Your task to perform on an android device: Go to accessibility settings Image 0: 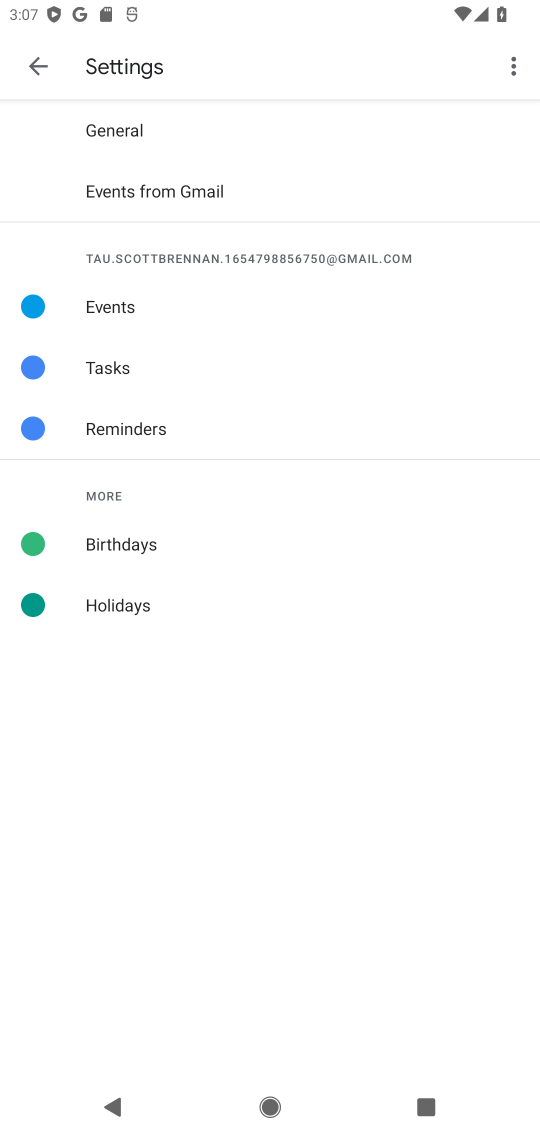
Step 0: press home button
Your task to perform on an android device: Go to accessibility settings Image 1: 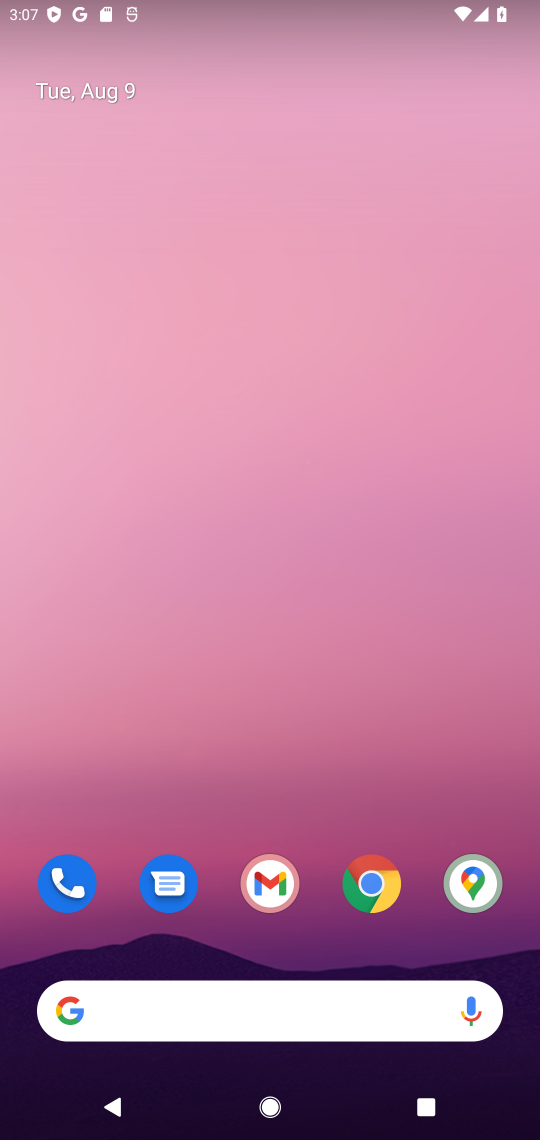
Step 1: drag from (431, 938) to (389, 176)
Your task to perform on an android device: Go to accessibility settings Image 2: 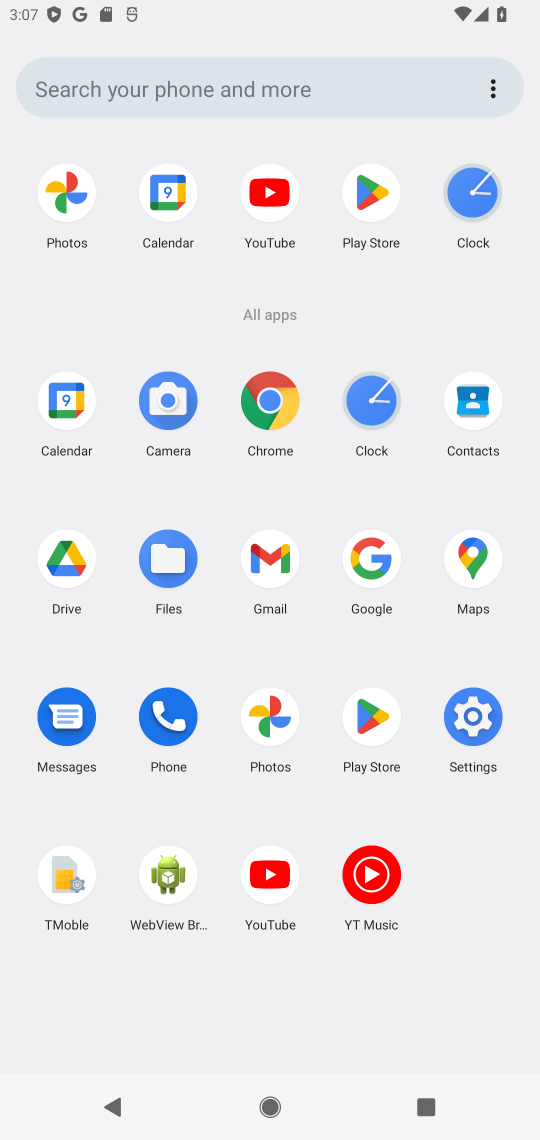
Step 2: click (473, 714)
Your task to perform on an android device: Go to accessibility settings Image 3: 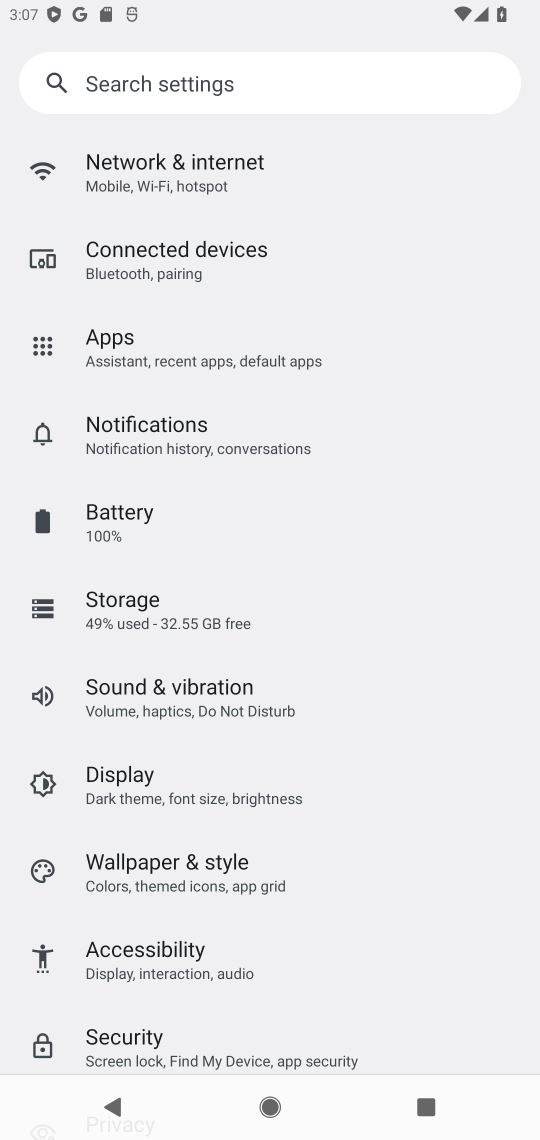
Step 3: drag from (364, 988) to (376, 796)
Your task to perform on an android device: Go to accessibility settings Image 4: 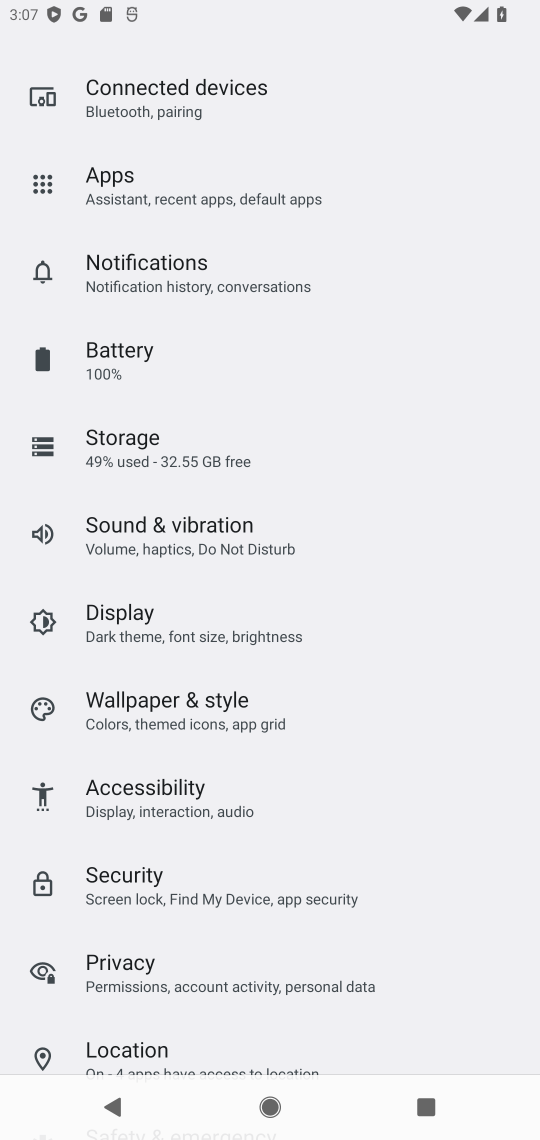
Step 4: click (148, 799)
Your task to perform on an android device: Go to accessibility settings Image 5: 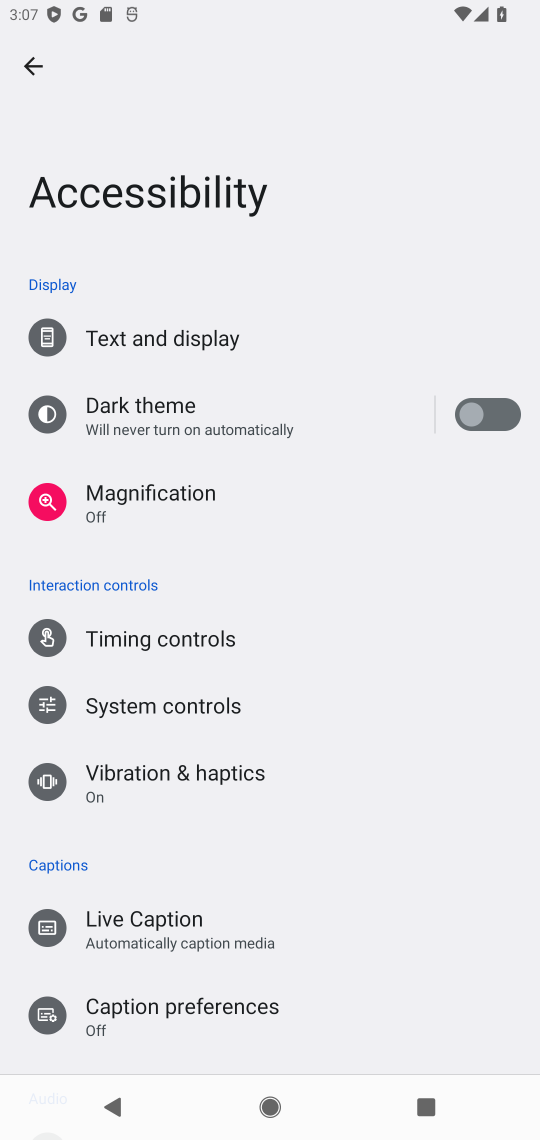
Step 5: task complete